Your task to perform on an android device: snooze an email in the gmail app Image 0: 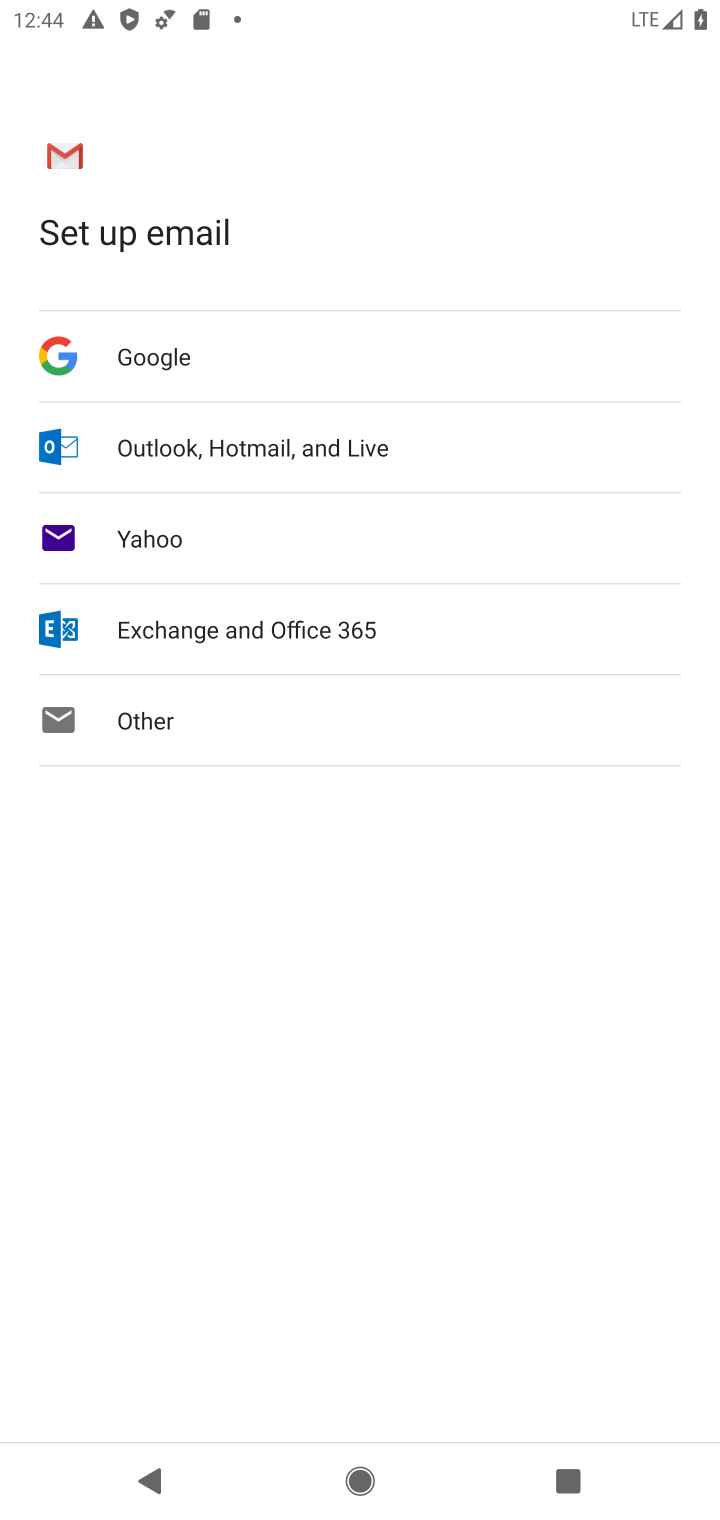
Step 0: press back button
Your task to perform on an android device: snooze an email in the gmail app Image 1: 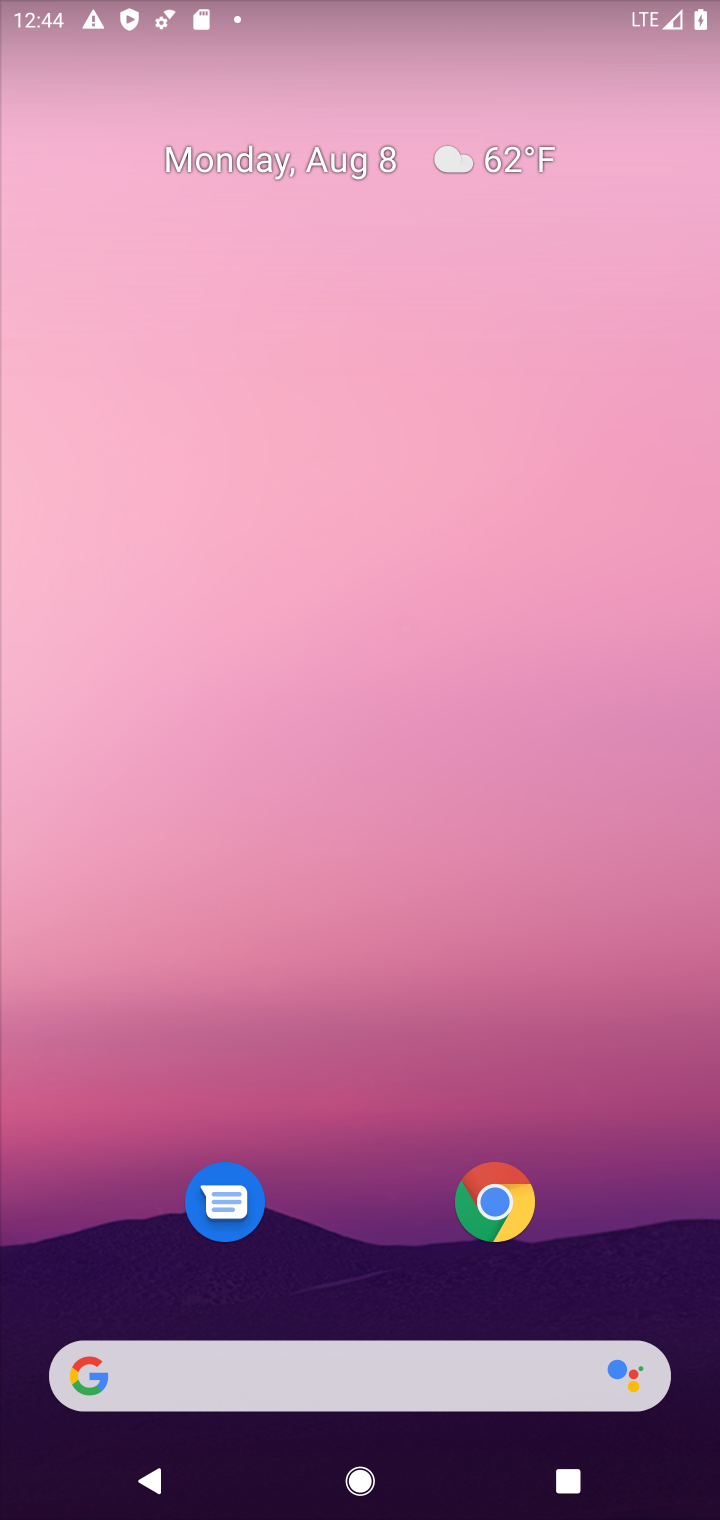
Step 1: drag from (367, 1172) to (324, 530)
Your task to perform on an android device: snooze an email in the gmail app Image 2: 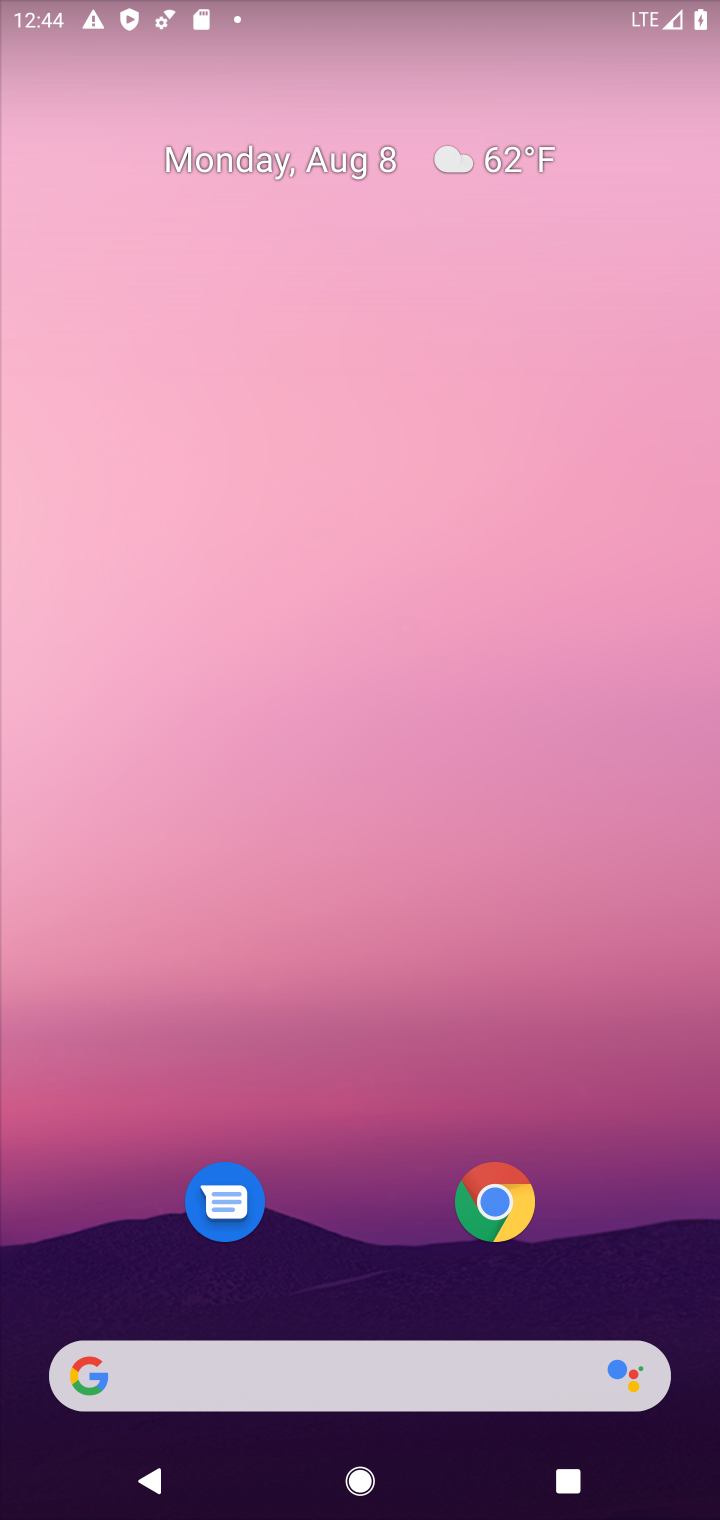
Step 2: drag from (355, 483) to (336, 17)
Your task to perform on an android device: snooze an email in the gmail app Image 3: 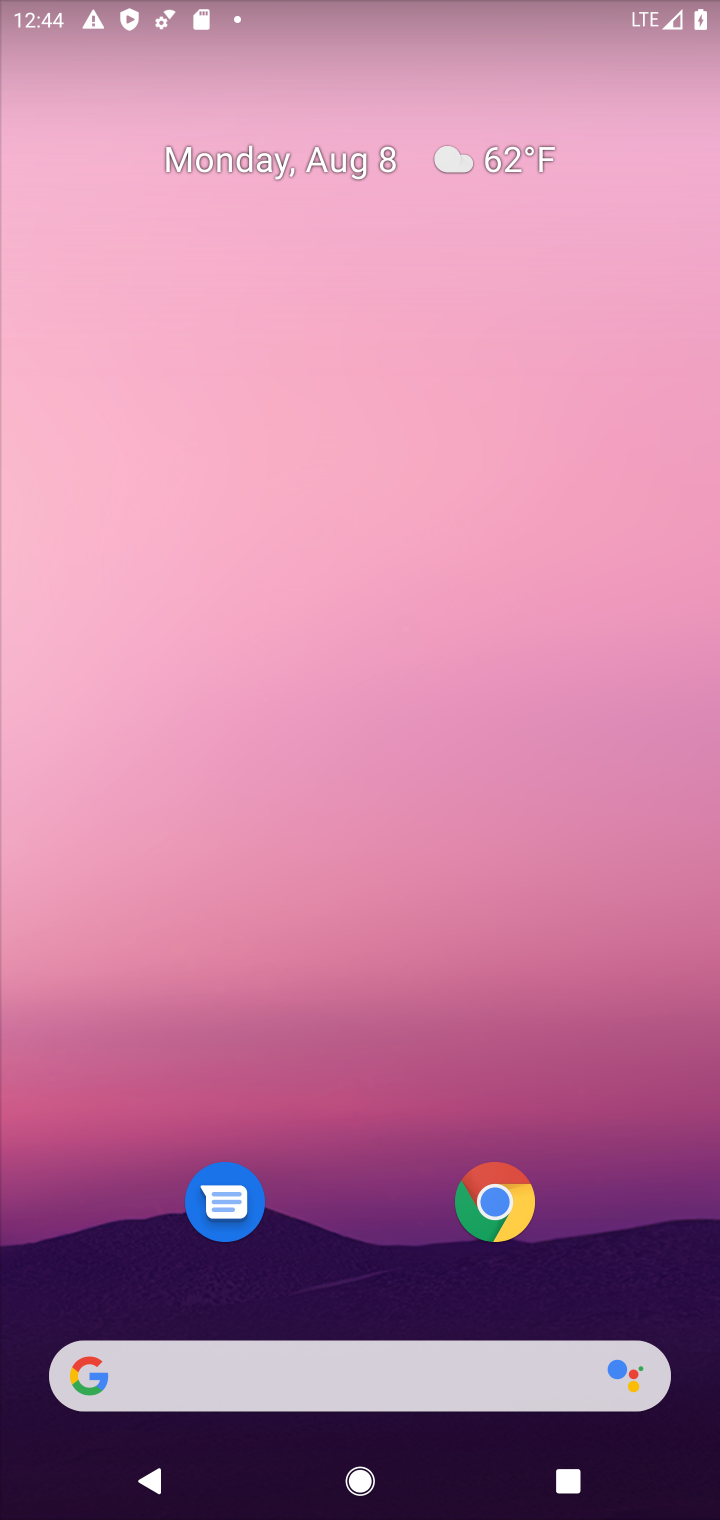
Step 3: drag from (309, 727) to (305, 216)
Your task to perform on an android device: snooze an email in the gmail app Image 4: 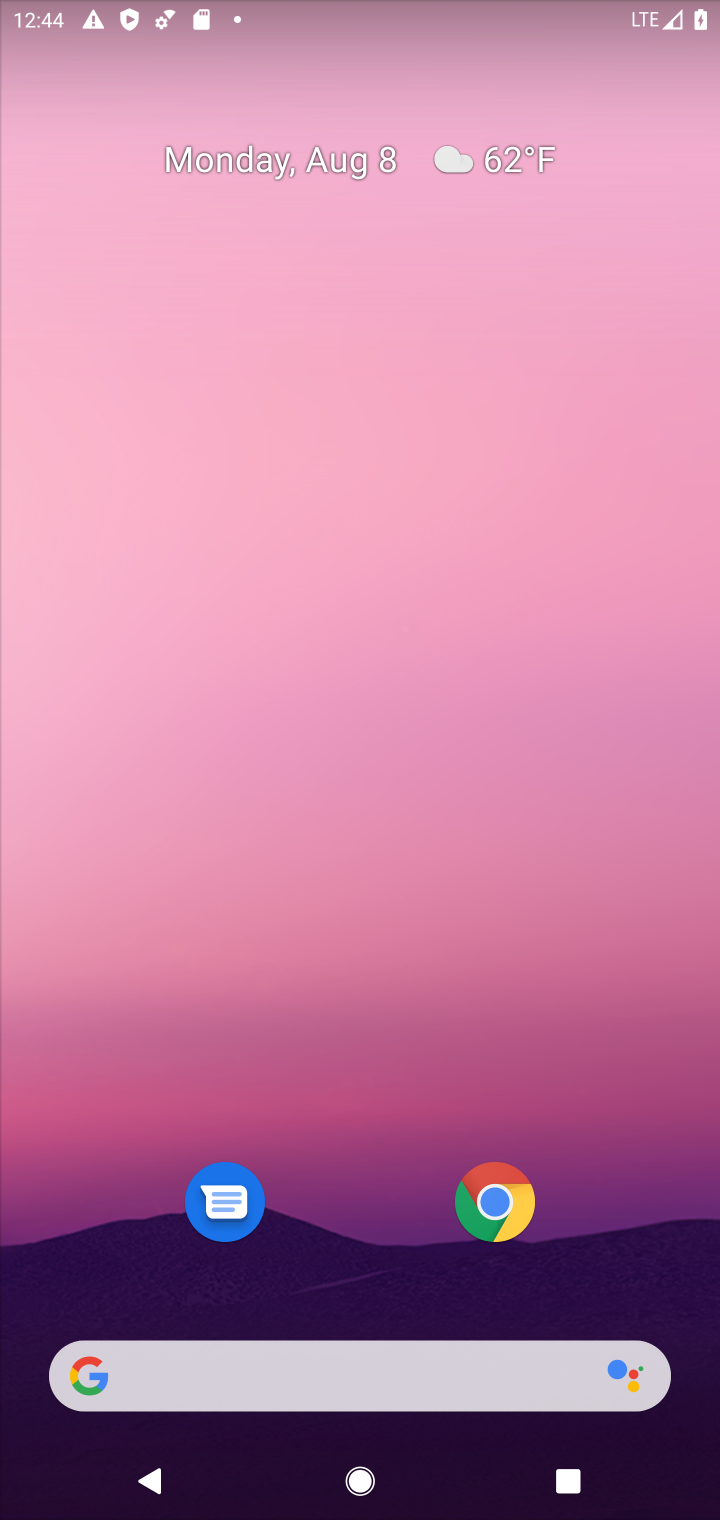
Step 4: drag from (352, 1316) to (352, 60)
Your task to perform on an android device: snooze an email in the gmail app Image 5: 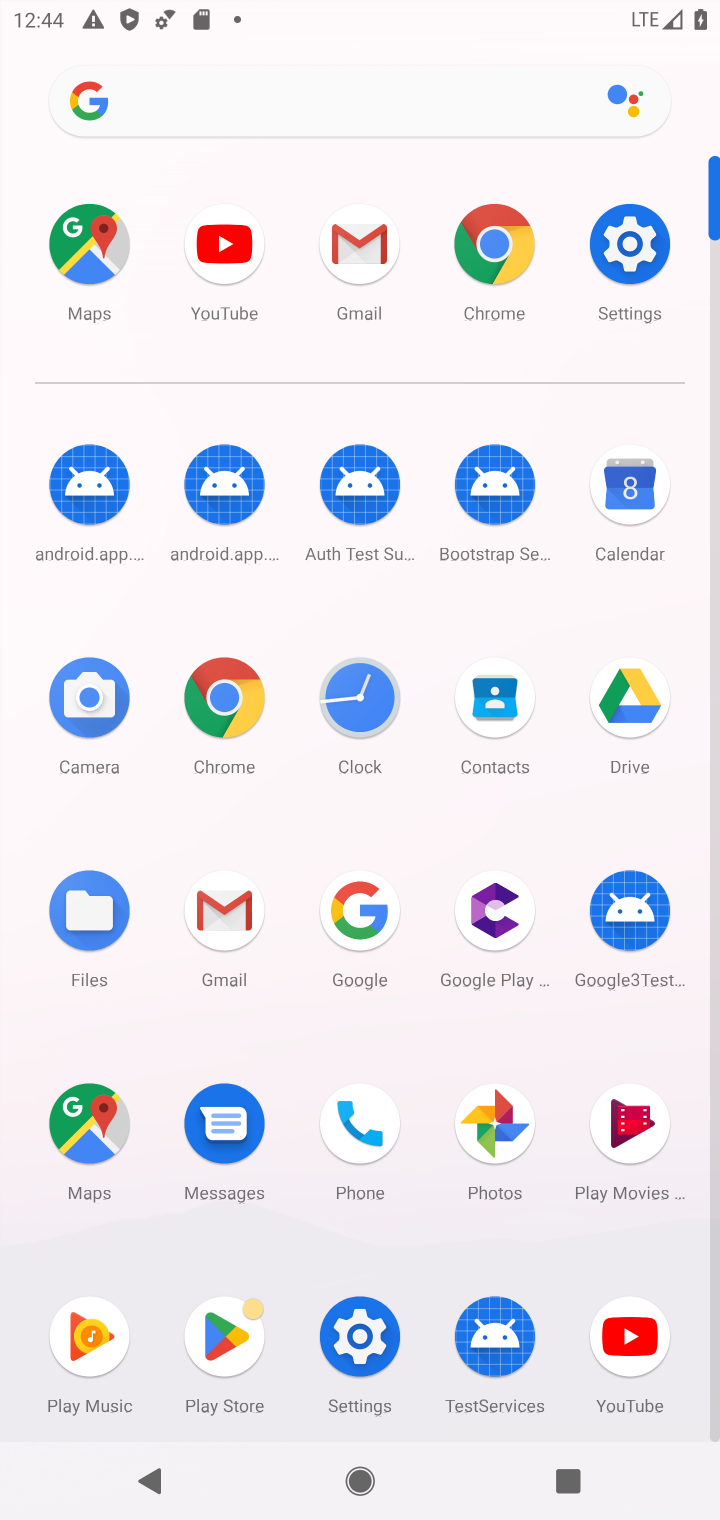
Step 5: click (371, 251)
Your task to perform on an android device: snooze an email in the gmail app Image 6: 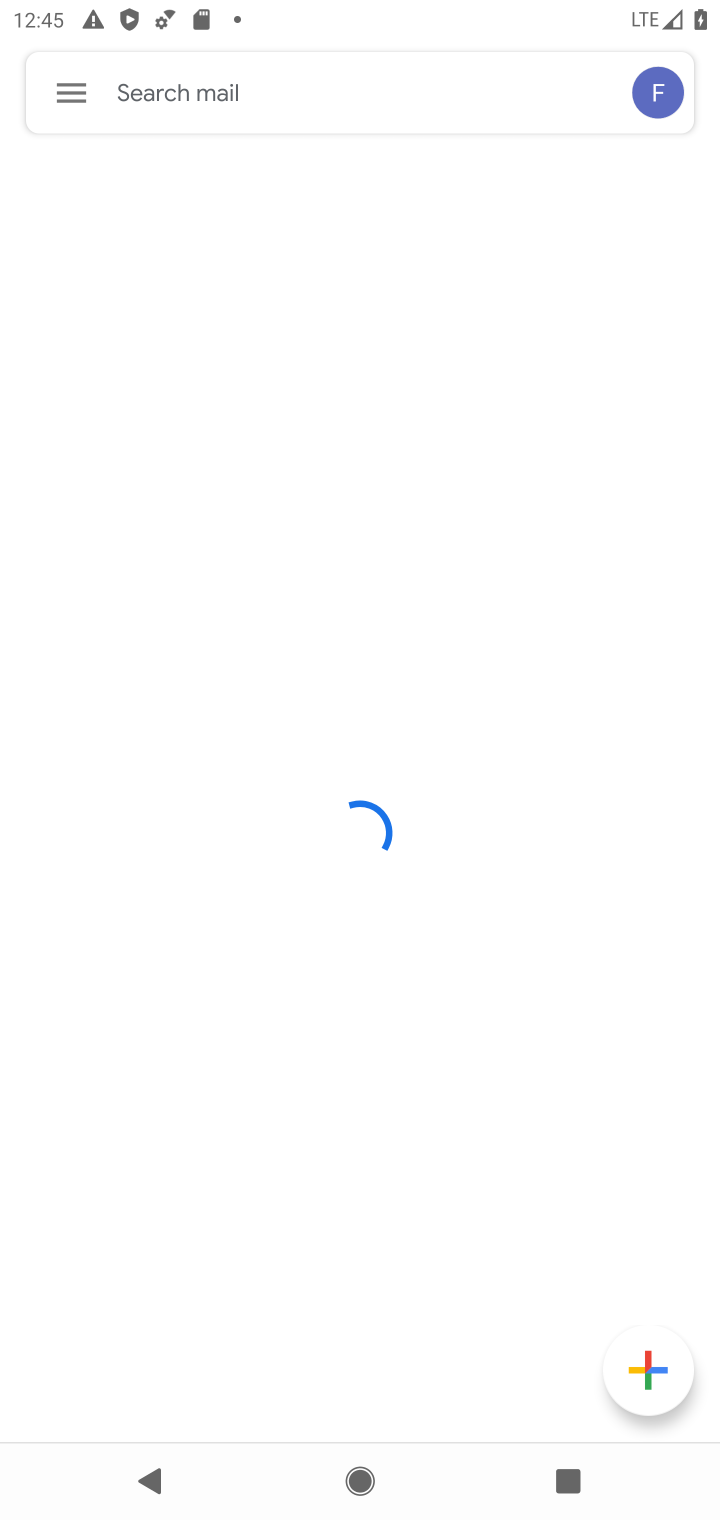
Step 6: click (391, 250)
Your task to perform on an android device: snooze an email in the gmail app Image 7: 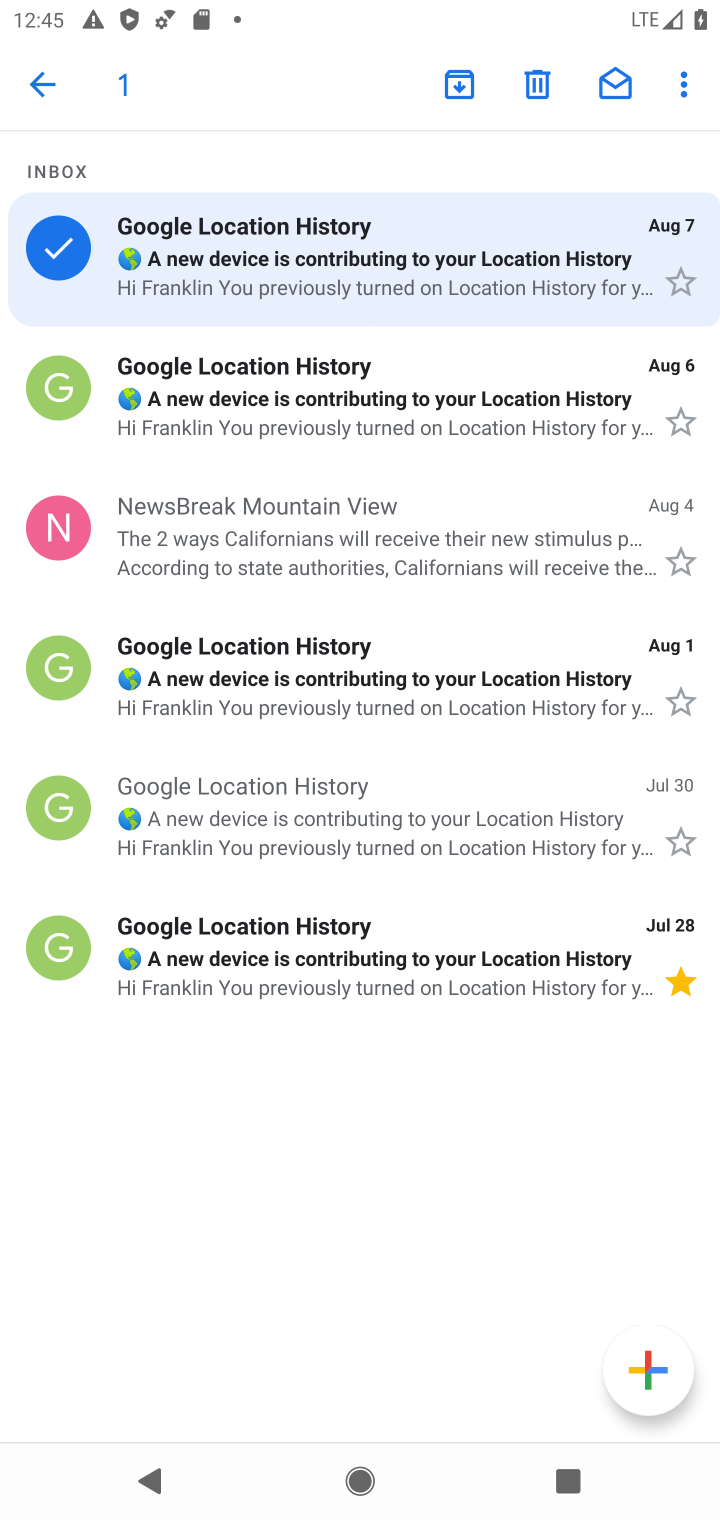
Step 7: click (33, 76)
Your task to perform on an android device: snooze an email in the gmail app Image 8: 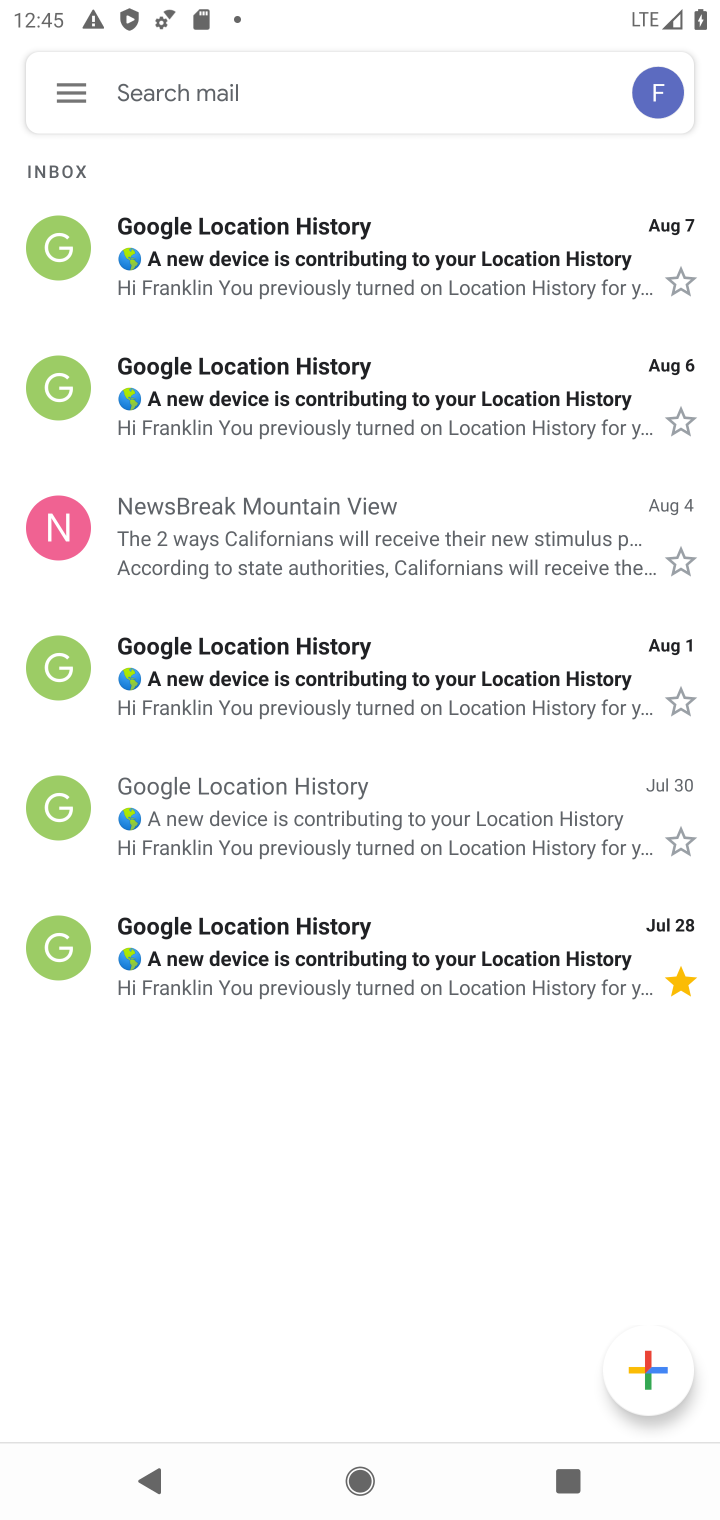
Step 8: click (249, 255)
Your task to perform on an android device: snooze an email in the gmail app Image 9: 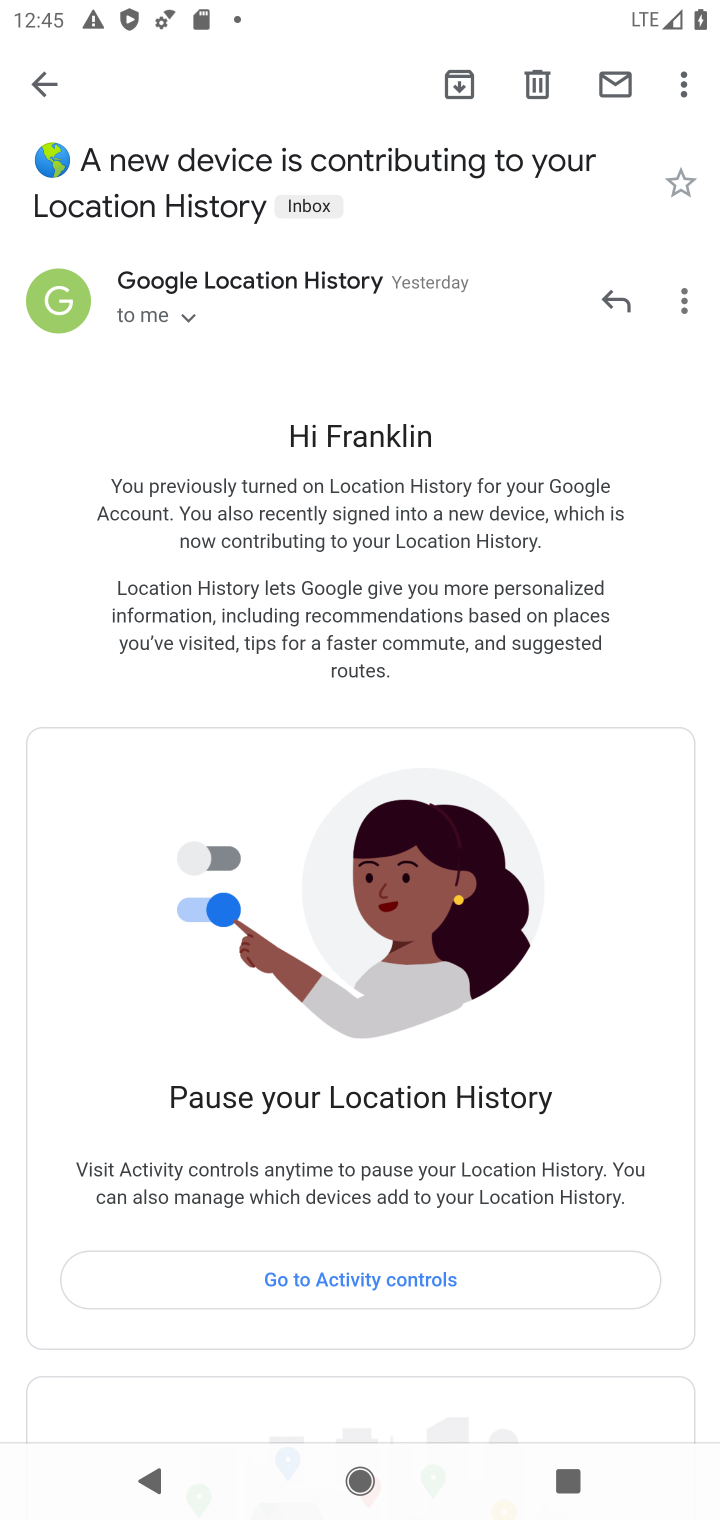
Step 9: click (693, 300)
Your task to perform on an android device: snooze an email in the gmail app Image 10: 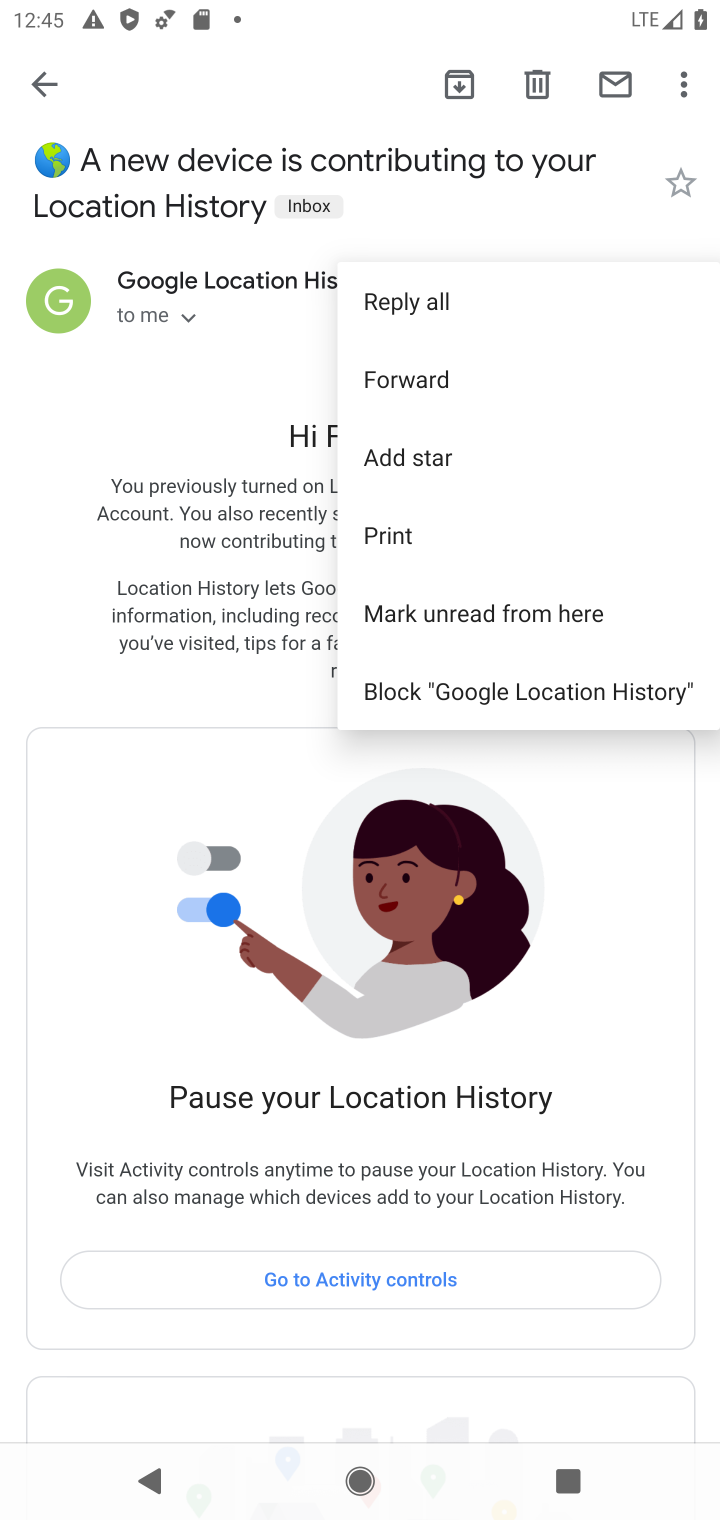
Step 10: click (682, 88)
Your task to perform on an android device: snooze an email in the gmail app Image 11: 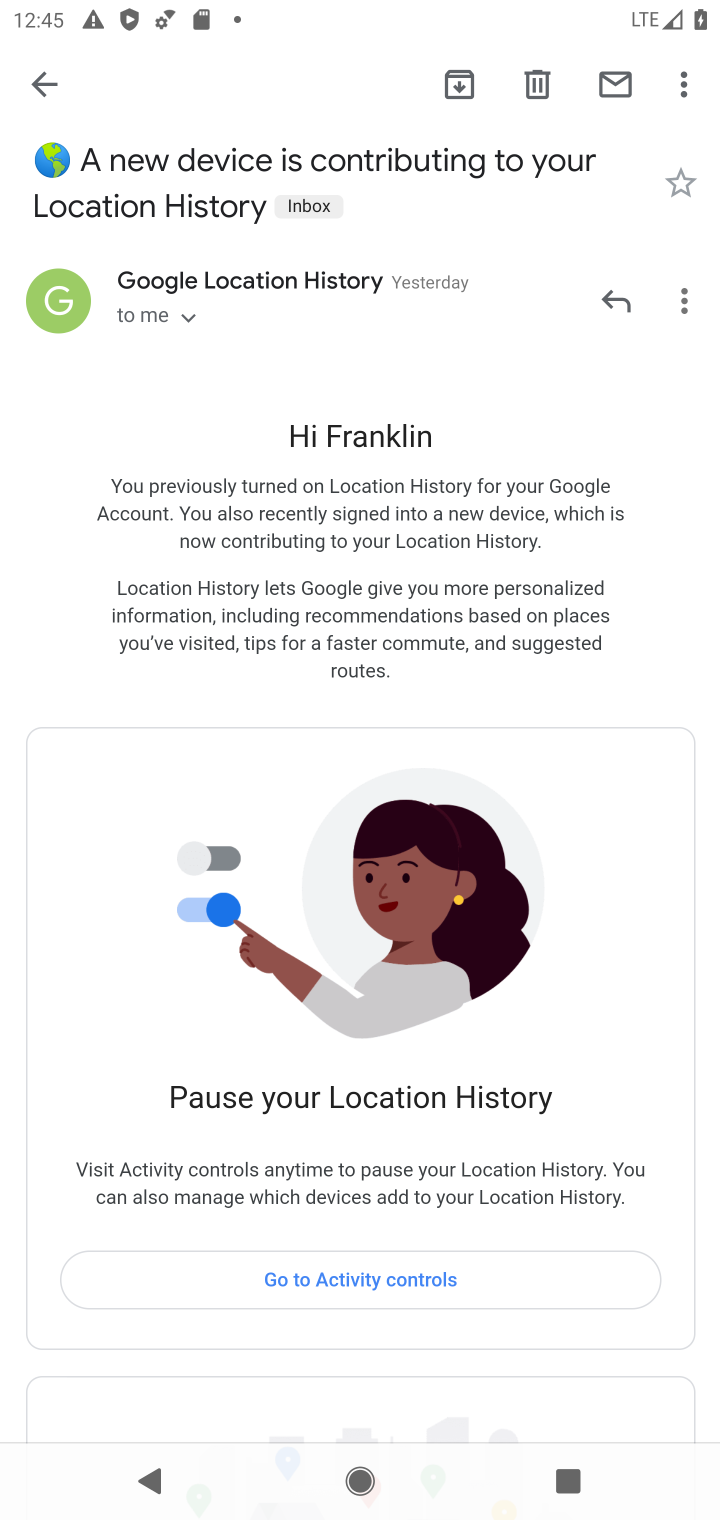
Step 11: click (682, 88)
Your task to perform on an android device: snooze an email in the gmail app Image 12: 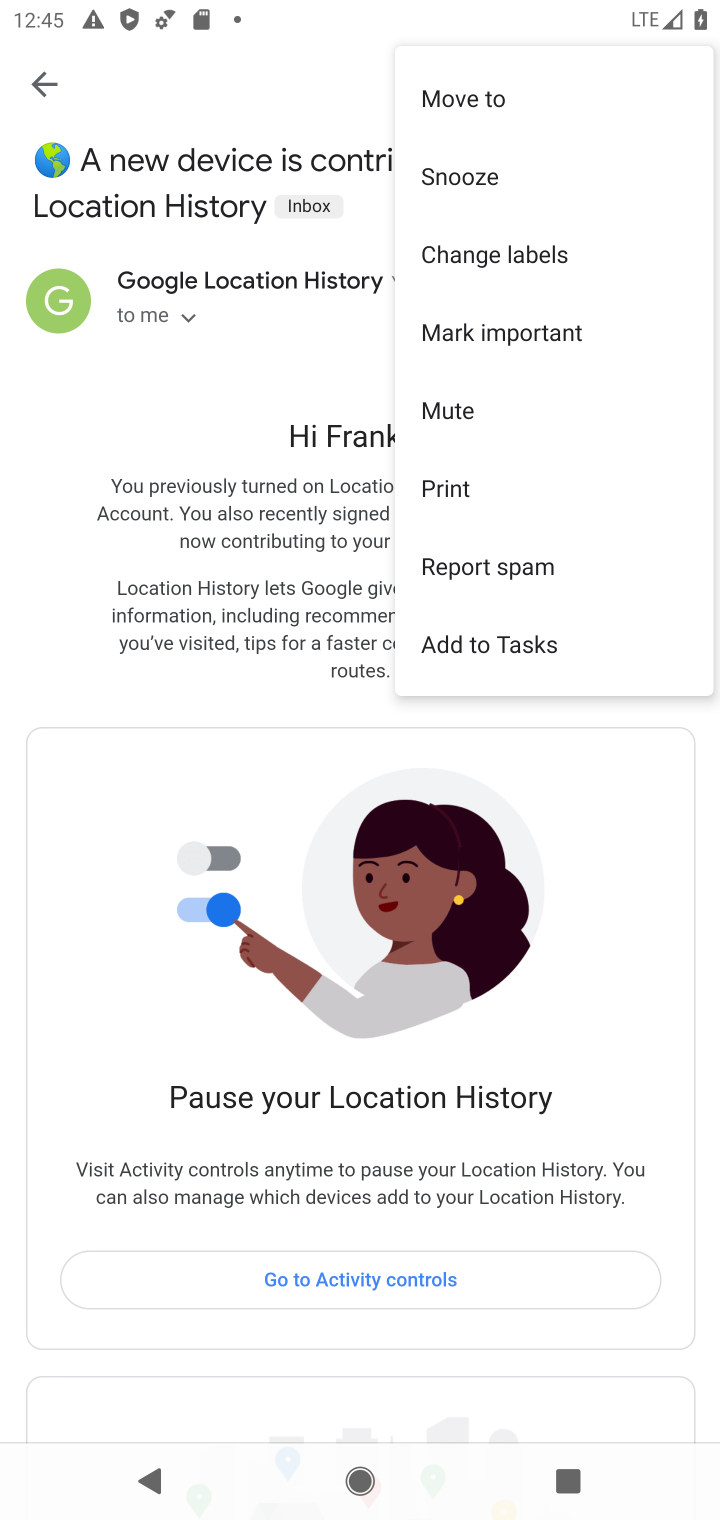
Step 12: click (455, 180)
Your task to perform on an android device: snooze an email in the gmail app Image 13: 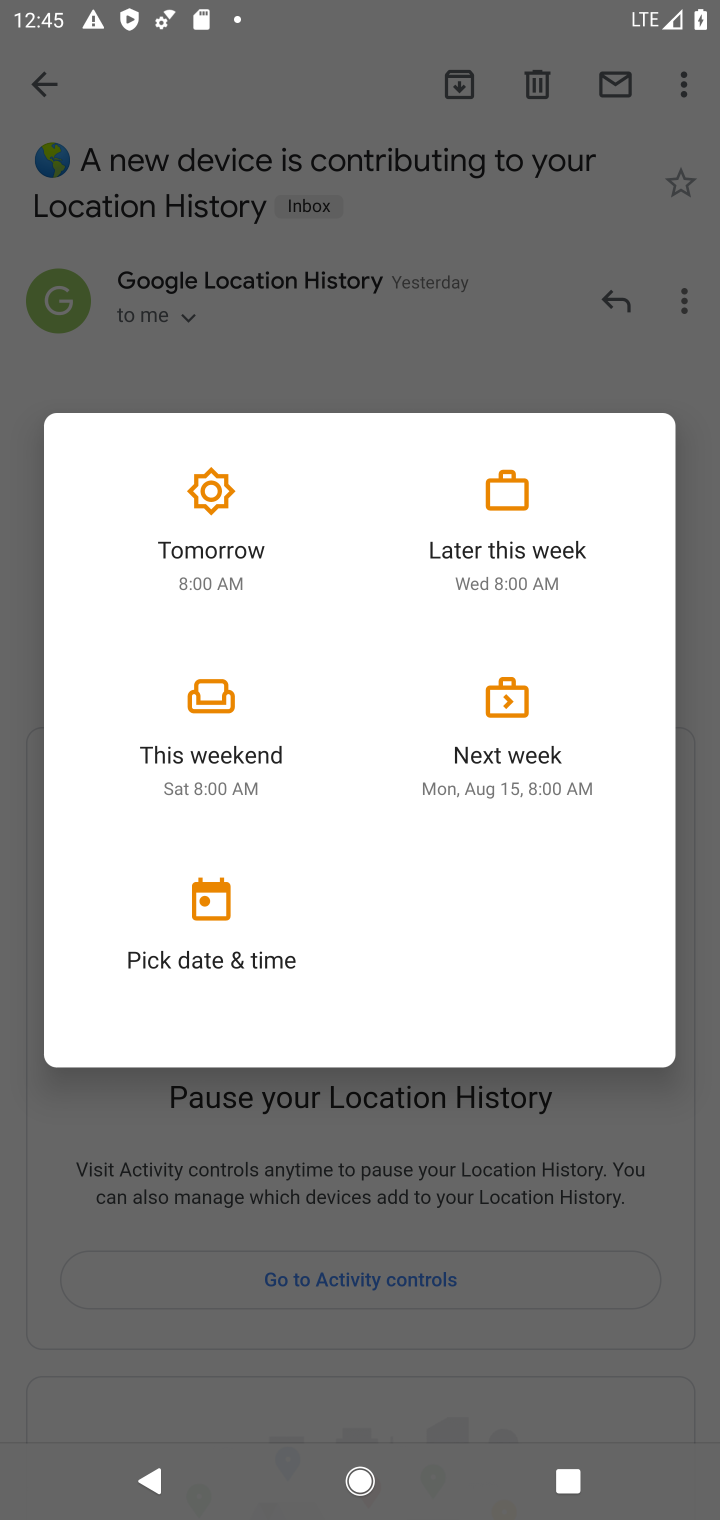
Step 13: click (536, 585)
Your task to perform on an android device: snooze an email in the gmail app Image 14: 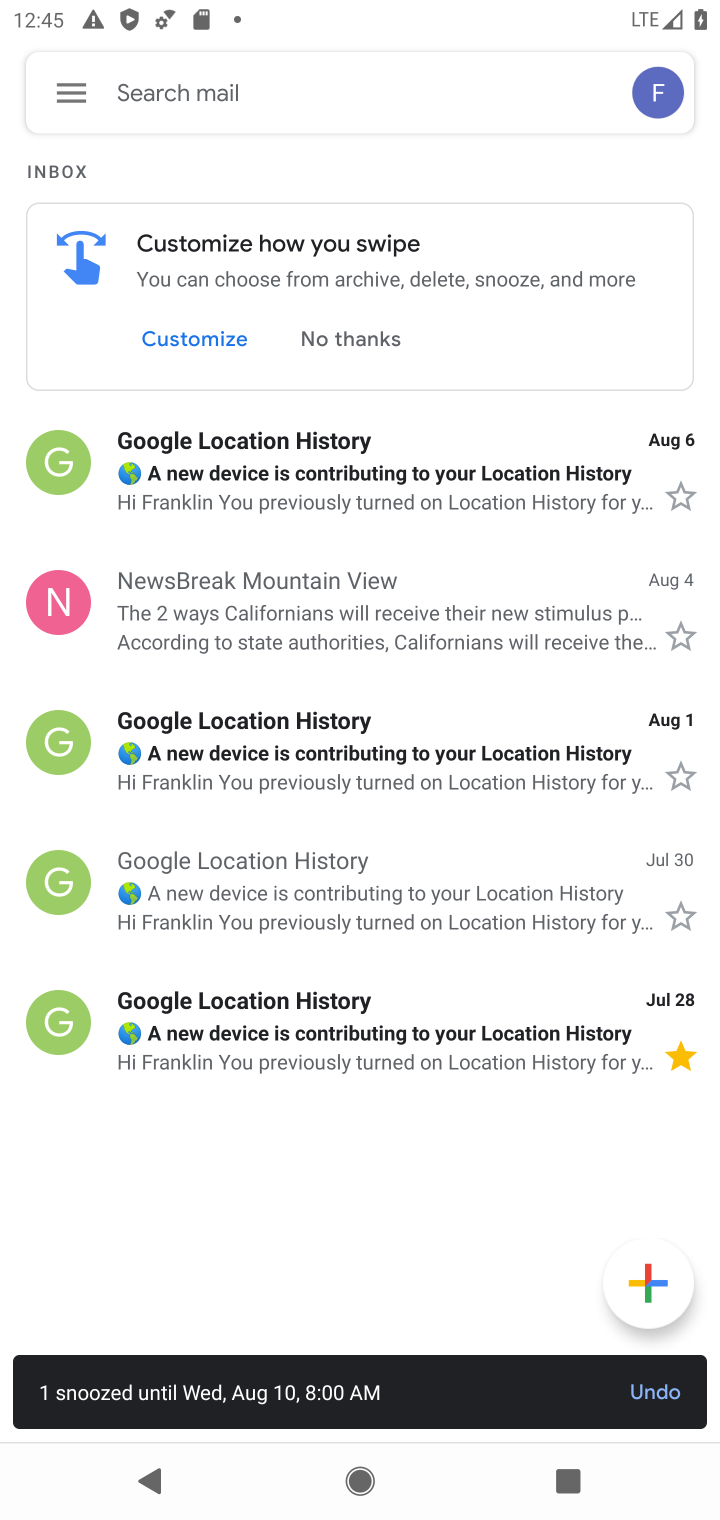
Step 14: task complete